Your task to perform on an android device: Go to settings Image 0: 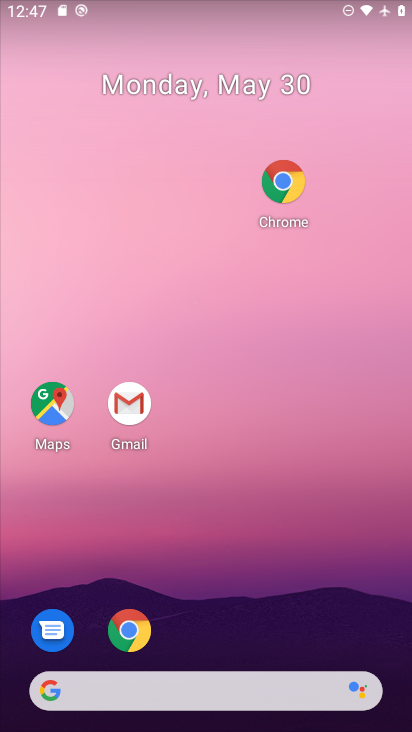
Step 0: drag from (194, 461) to (189, 229)
Your task to perform on an android device: Go to settings Image 1: 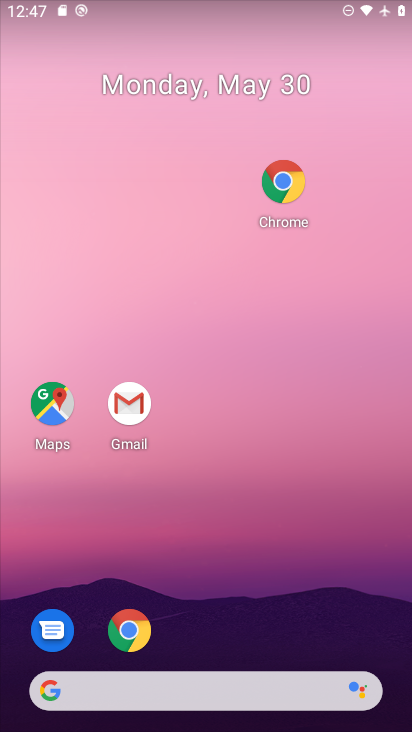
Step 1: drag from (289, 654) to (148, 137)
Your task to perform on an android device: Go to settings Image 2: 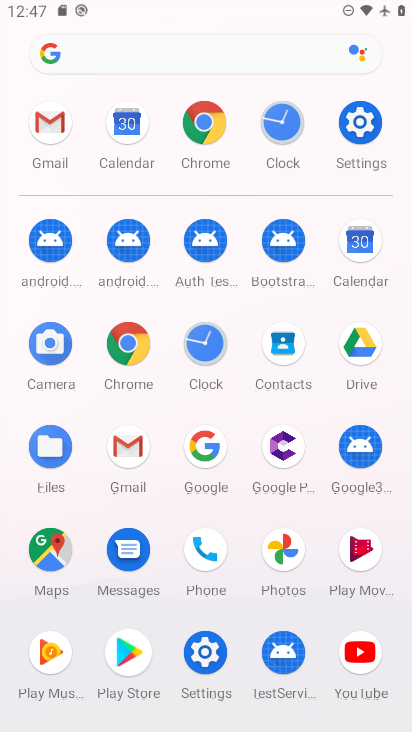
Step 2: click (357, 129)
Your task to perform on an android device: Go to settings Image 3: 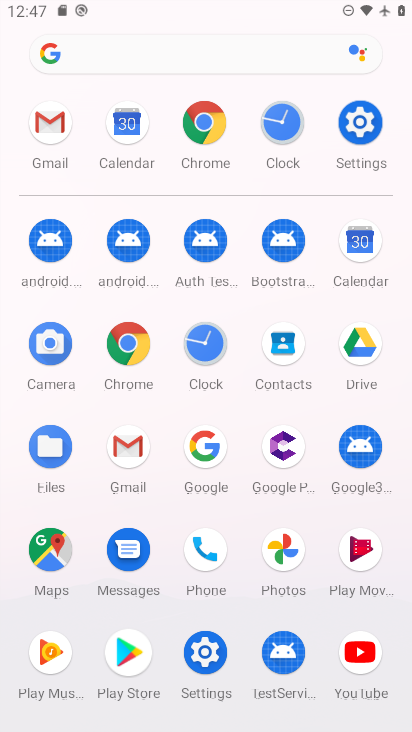
Step 3: click (356, 128)
Your task to perform on an android device: Go to settings Image 4: 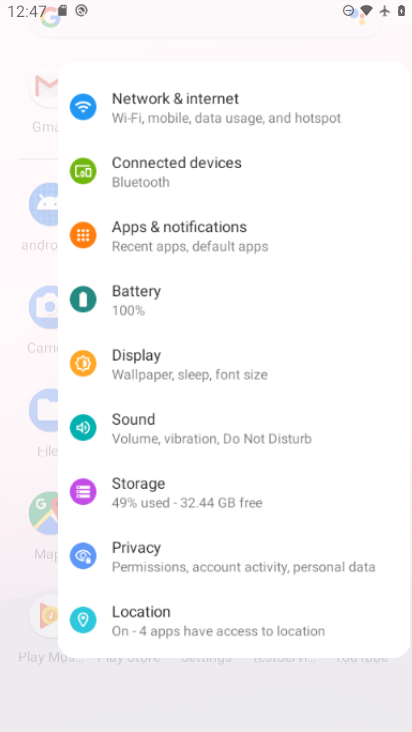
Step 4: click (356, 128)
Your task to perform on an android device: Go to settings Image 5: 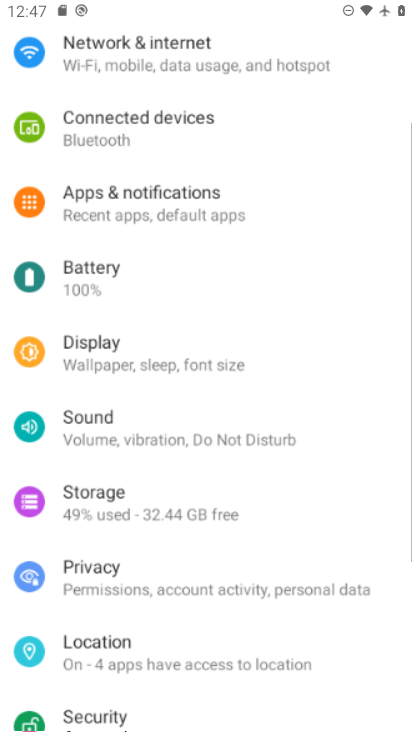
Step 5: click (356, 128)
Your task to perform on an android device: Go to settings Image 6: 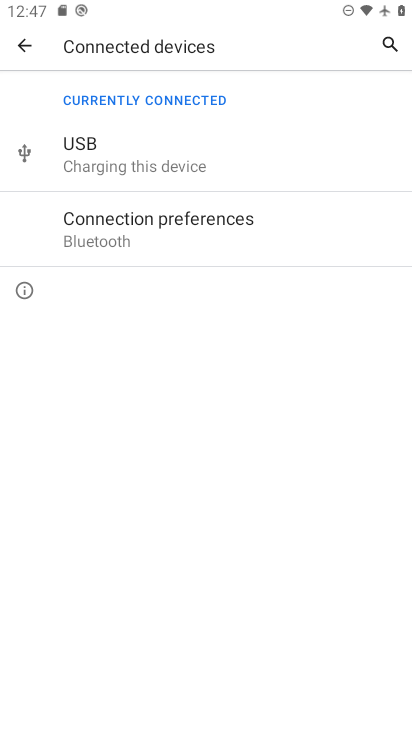
Step 6: click (26, 46)
Your task to perform on an android device: Go to settings Image 7: 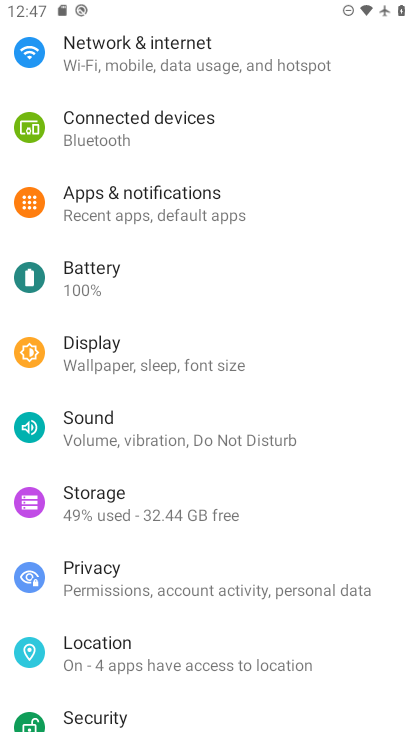
Step 7: task complete